Your task to perform on an android device: Open Amazon Image 0: 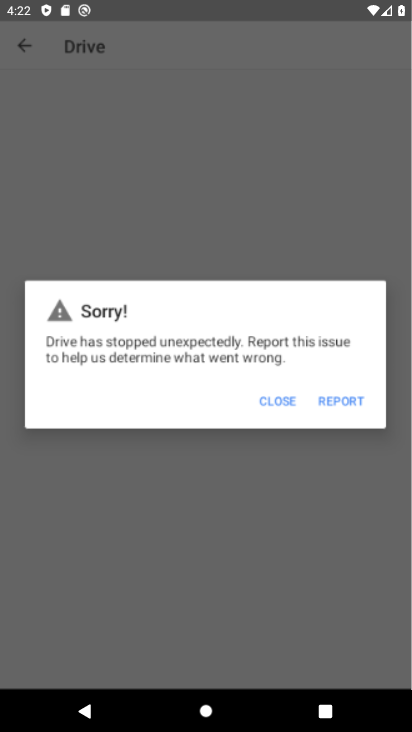
Step 0: drag from (284, 694) to (234, 155)
Your task to perform on an android device: Open Amazon Image 1: 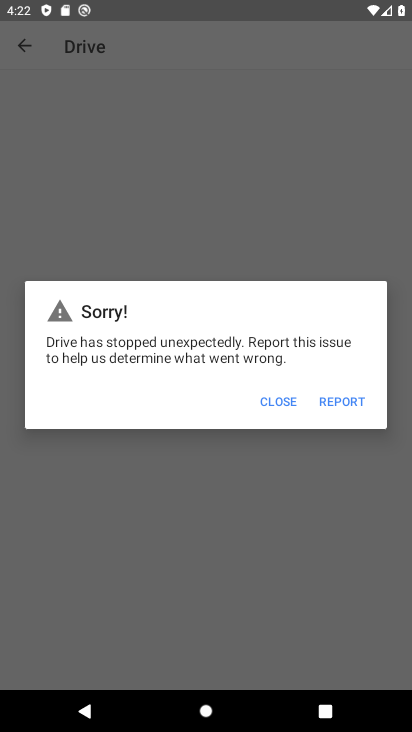
Step 1: click (283, 408)
Your task to perform on an android device: Open Amazon Image 2: 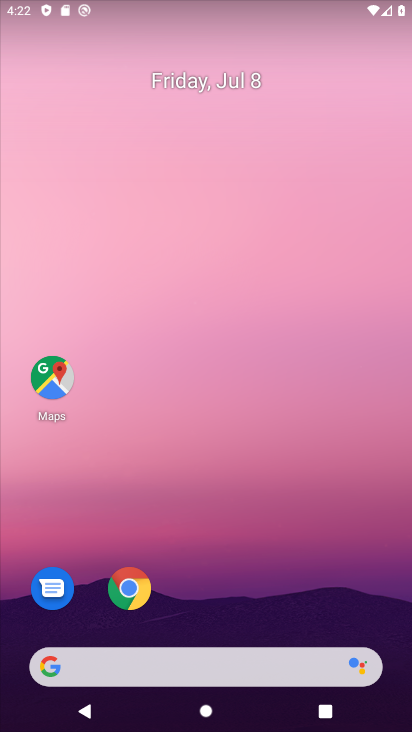
Step 2: drag from (273, 522) to (251, 65)
Your task to perform on an android device: Open Amazon Image 3: 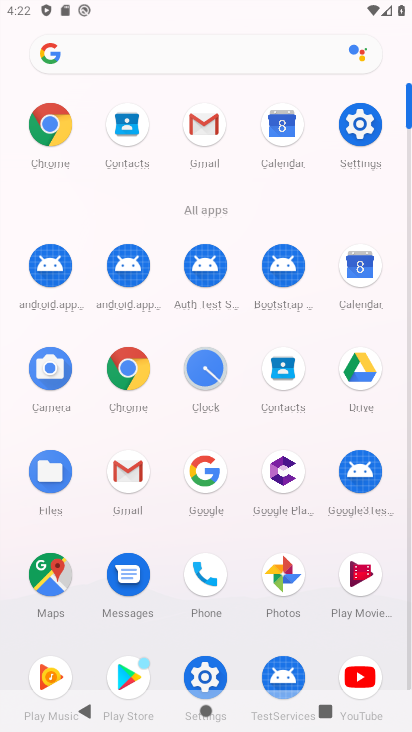
Step 3: click (152, 377)
Your task to perform on an android device: Open Amazon Image 4: 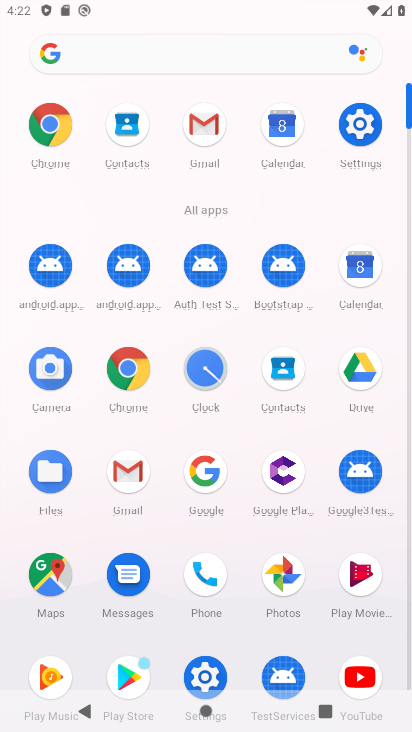
Step 4: click (137, 373)
Your task to perform on an android device: Open Amazon Image 5: 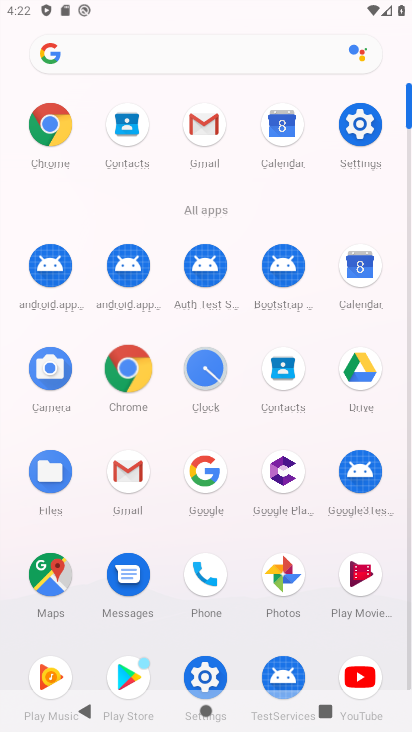
Step 5: click (133, 374)
Your task to perform on an android device: Open Amazon Image 6: 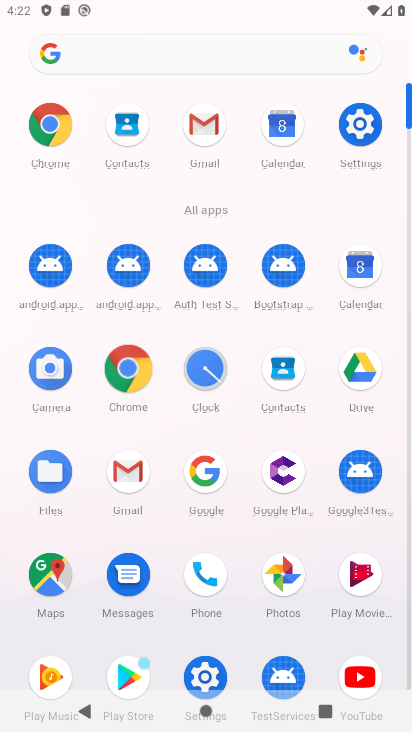
Step 6: click (129, 374)
Your task to perform on an android device: Open Amazon Image 7: 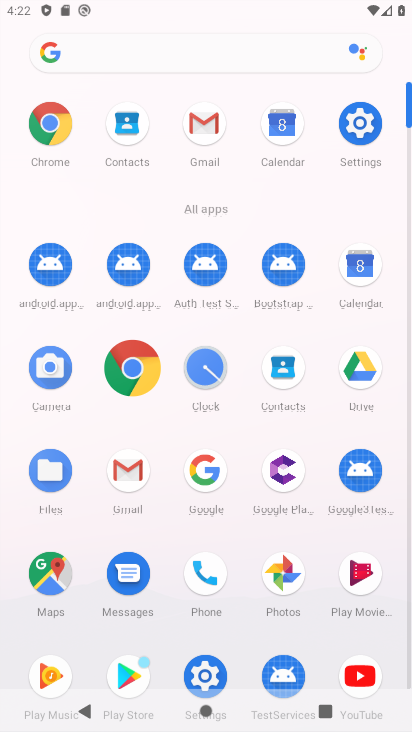
Step 7: click (125, 373)
Your task to perform on an android device: Open Amazon Image 8: 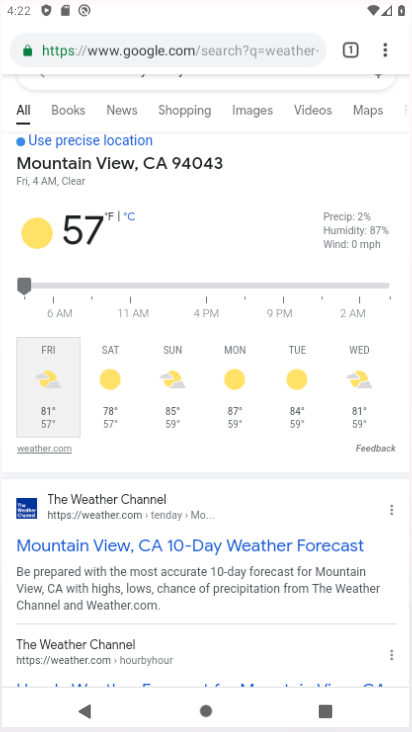
Step 8: click (124, 372)
Your task to perform on an android device: Open Amazon Image 9: 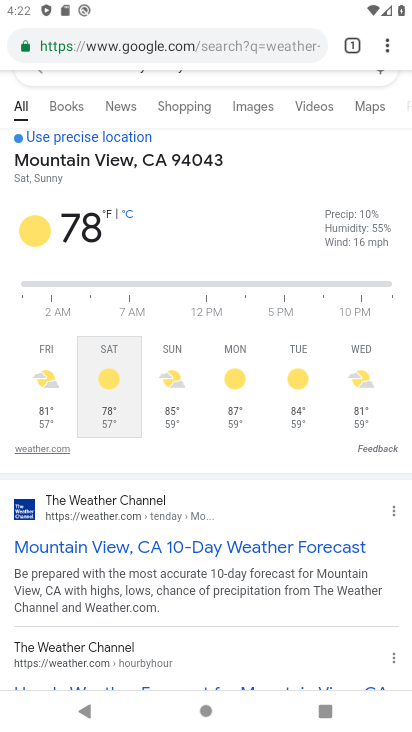
Step 9: drag from (385, 48) to (216, 81)
Your task to perform on an android device: Open Amazon Image 10: 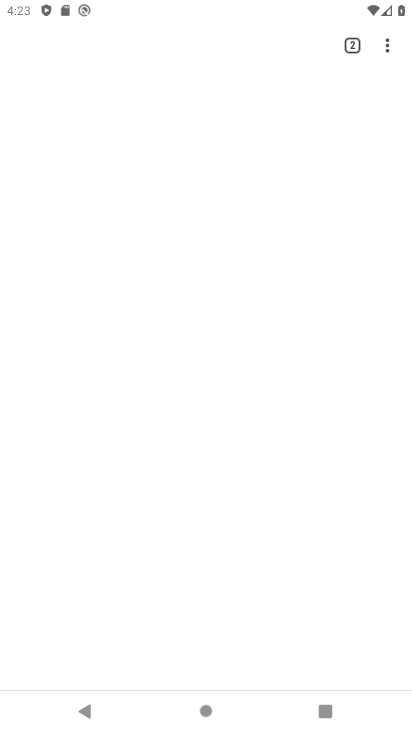
Step 10: click (224, 74)
Your task to perform on an android device: Open Amazon Image 11: 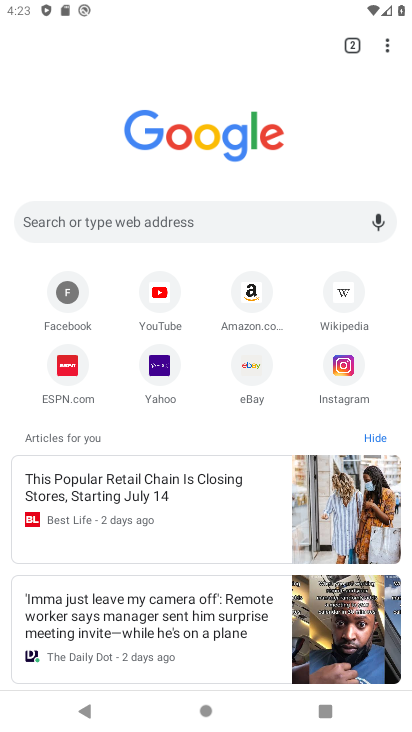
Step 11: click (237, 293)
Your task to perform on an android device: Open Amazon Image 12: 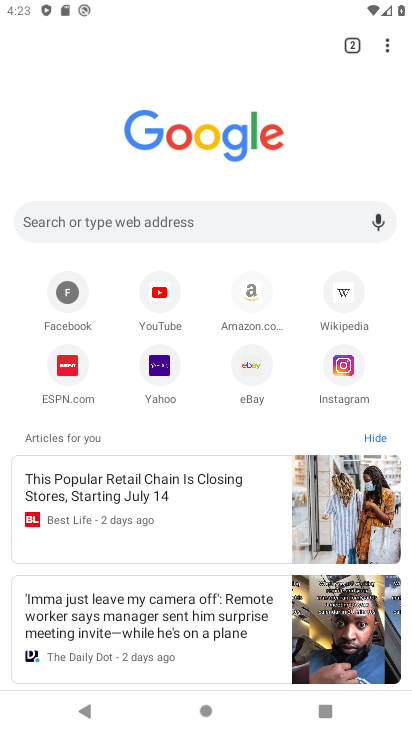
Step 12: click (246, 282)
Your task to perform on an android device: Open Amazon Image 13: 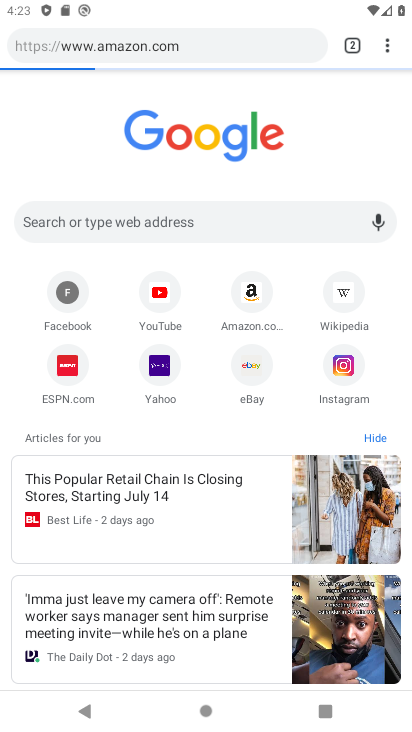
Step 13: click (248, 284)
Your task to perform on an android device: Open Amazon Image 14: 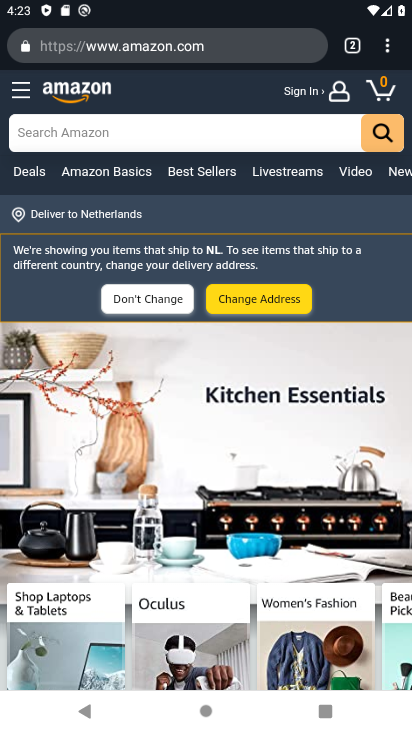
Step 14: task complete